Your task to perform on an android device: Go to accessibility settings Image 0: 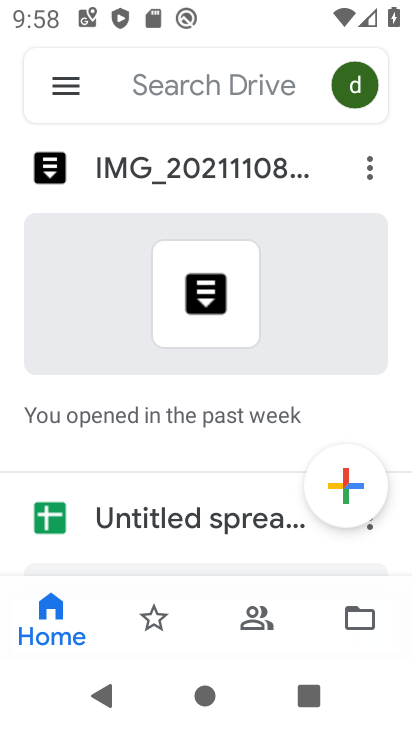
Step 0: press home button
Your task to perform on an android device: Go to accessibility settings Image 1: 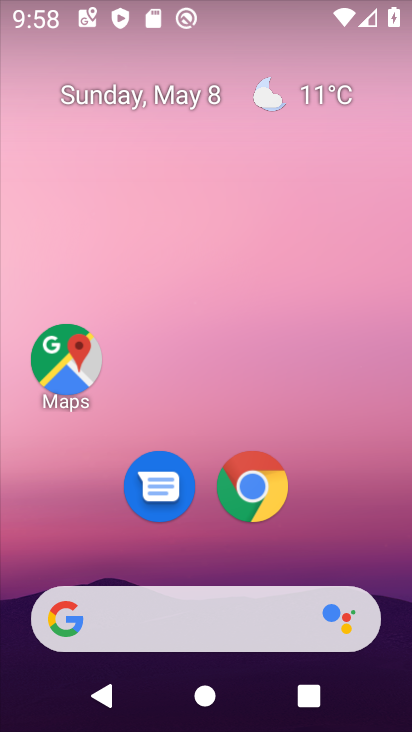
Step 1: drag from (319, 562) to (301, 55)
Your task to perform on an android device: Go to accessibility settings Image 2: 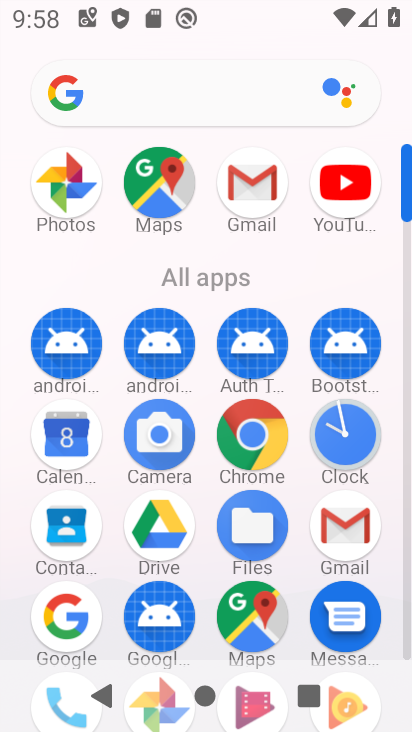
Step 2: drag from (103, 370) to (124, 144)
Your task to perform on an android device: Go to accessibility settings Image 3: 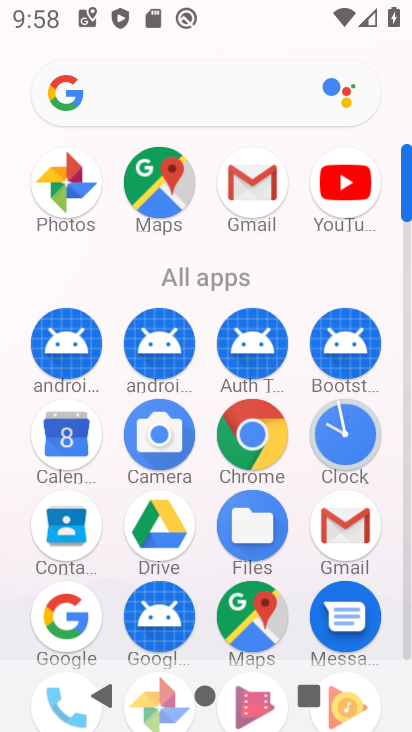
Step 3: drag from (180, 466) to (213, 243)
Your task to perform on an android device: Go to accessibility settings Image 4: 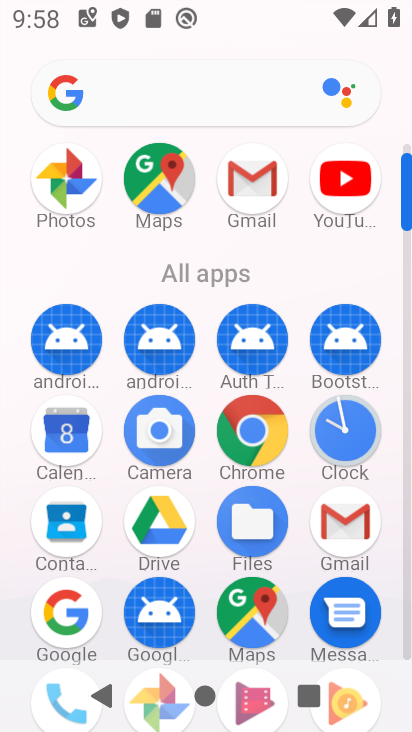
Step 4: drag from (206, 645) to (241, 232)
Your task to perform on an android device: Go to accessibility settings Image 5: 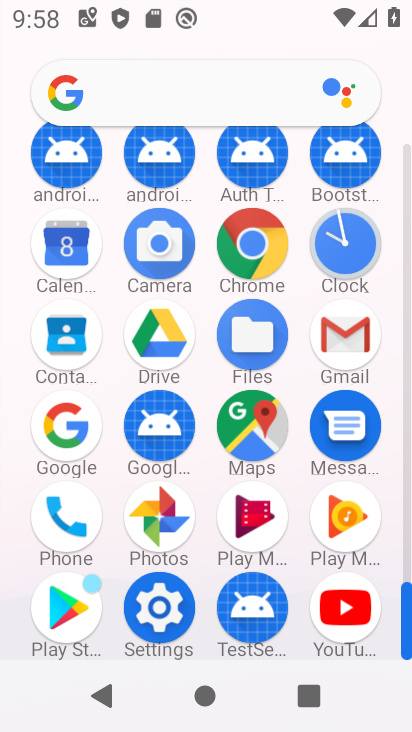
Step 5: click (147, 605)
Your task to perform on an android device: Go to accessibility settings Image 6: 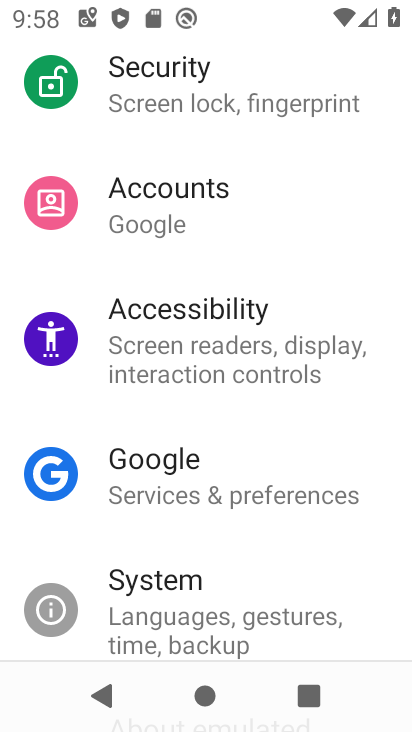
Step 6: click (194, 354)
Your task to perform on an android device: Go to accessibility settings Image 7: 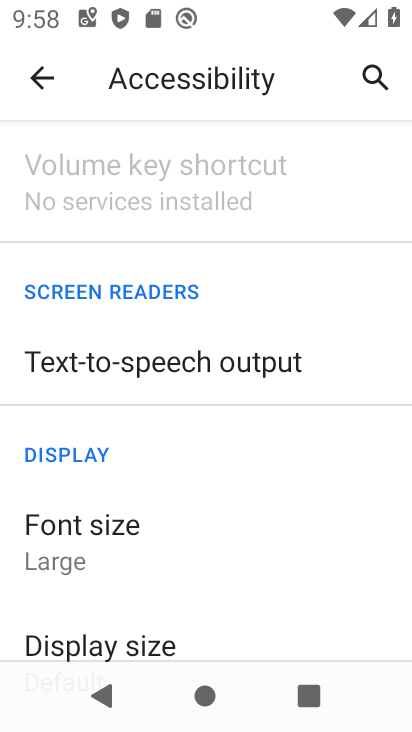
Step 7: task complete